Your task to perform on an android device: Show me popular videos on Youtube Image 0: 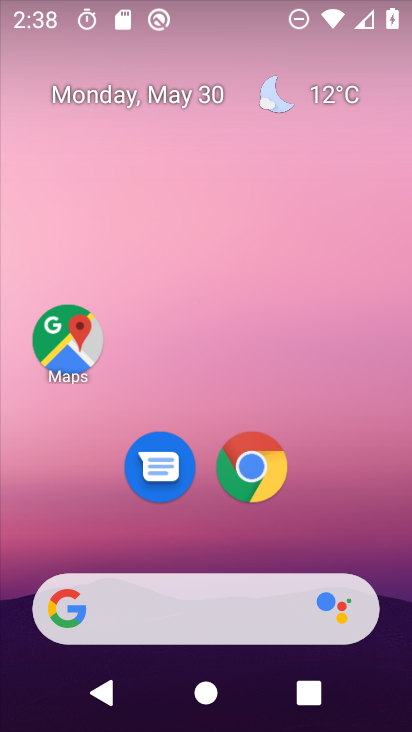
Step 0: drag from (398, 720) to (309, 99)
Your task to perform on an android device: Show me popular videos on Youtube Image 1: 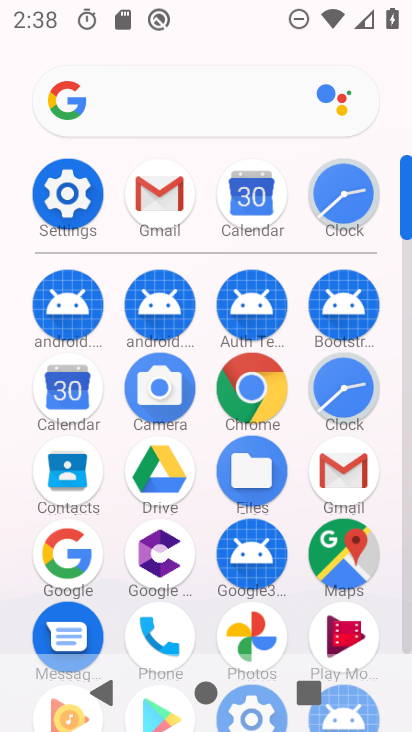
Step 1: drag from (290, 655) to (259, 224)
Your task to perform on an android device: Show me popular videos on Youtube Image 2: 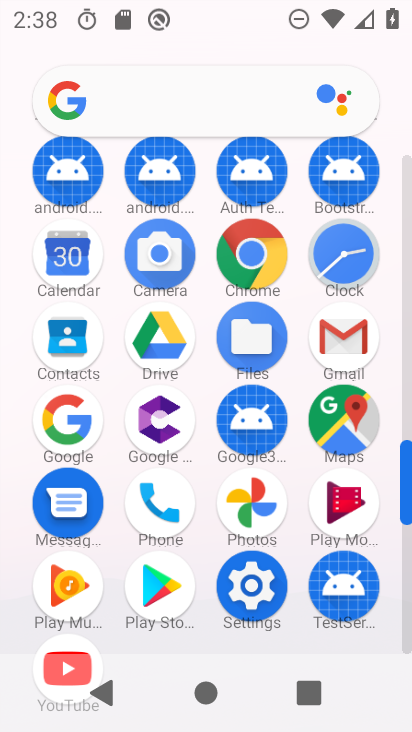
Step 2: drag from (107, 597) to (108, 282)
Your task to perform on an android device: Show me popular videos on Youtube Image 3: 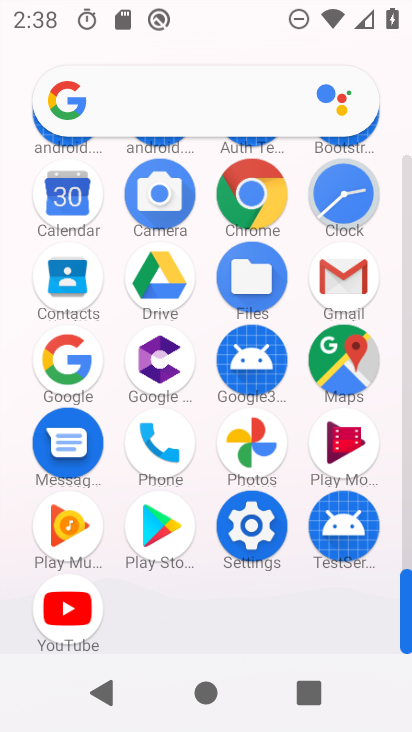
Step 3: click (79, 595)
Your task to perform on an android device: Show me popular videos on Youtube Image 4: 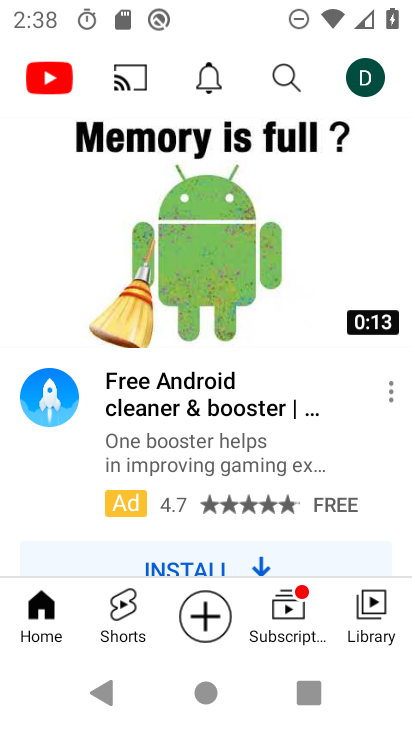
Step 4: click (276, 70)
Your task to perform on an android device: Show me popular videos on Youtube Image 5: 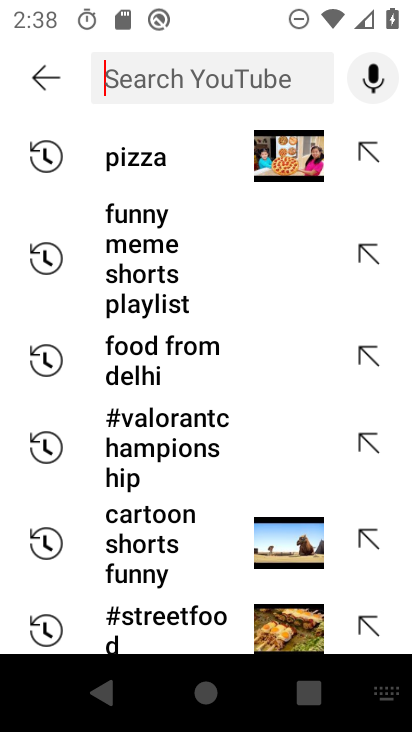
Step 5: type "popular videos"
Your task to perform on an android device: Show me popular videos on Youtube Image 6: 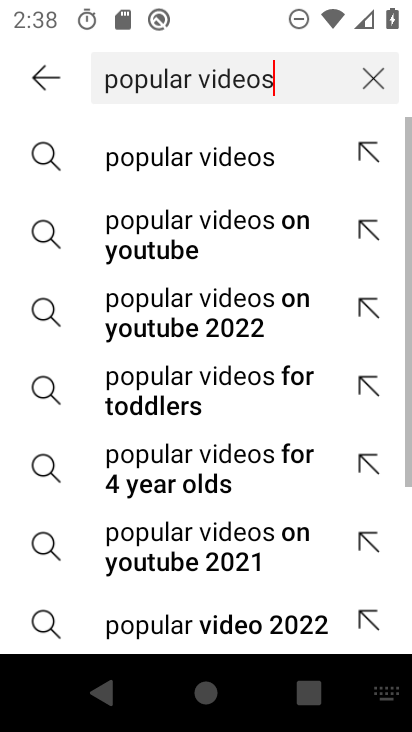
Step 6: click (165, 155)
Your task to perform on an android device: Show me popular videos on Youtube Image 7: 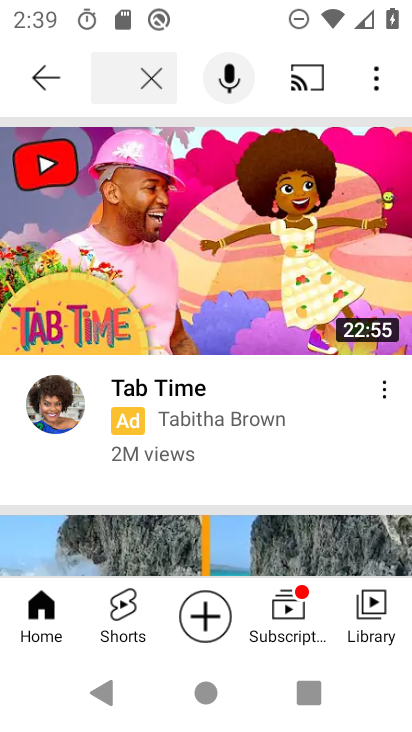
Step 7: task complete